Your task to perform on an android device: Open maps Image 0: 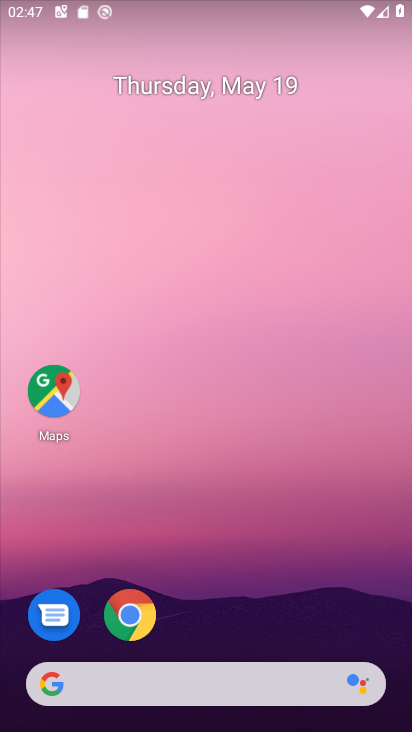
Step 0: drag from (244, 528) to (217, 35)
Your task to perform on an android device: Open maps Image 1: 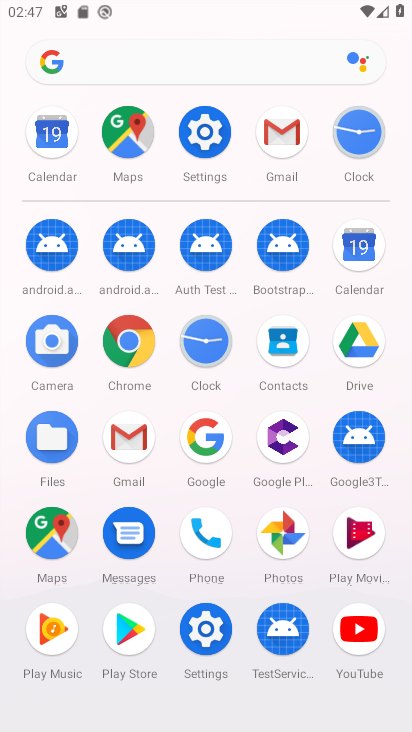
Step 1: drag from (22, 479) to (41, 215)
Your task to perform on an android device: Open maps Image 2: 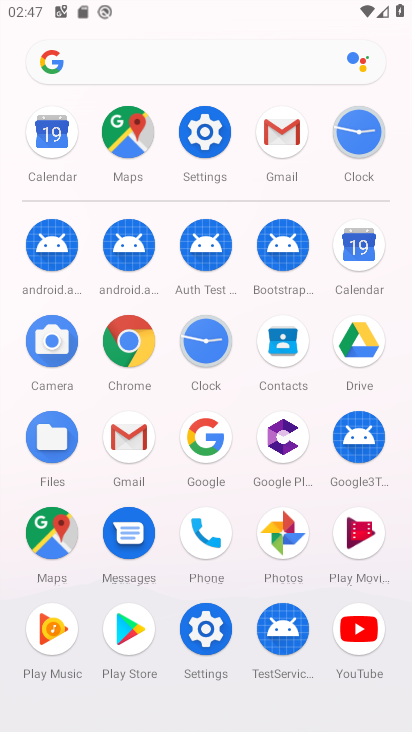
Step 2: click (44, 530)
Your task to perform on an android device: Open maps Image 3: 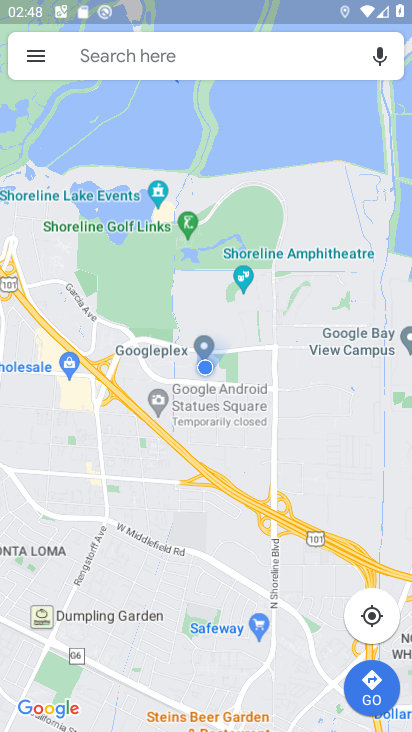
Step 3: task complete